Your task to perform on an android device: Go to battery settings Image 0: 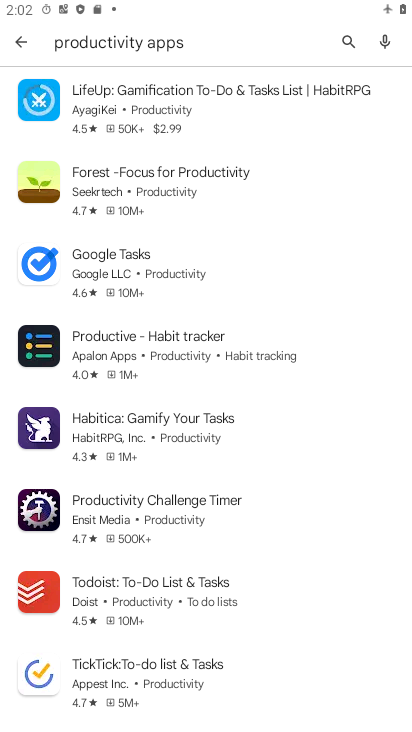
Step 0: press home button
Your task to perform on an android device: Go to battery settings Image 1: 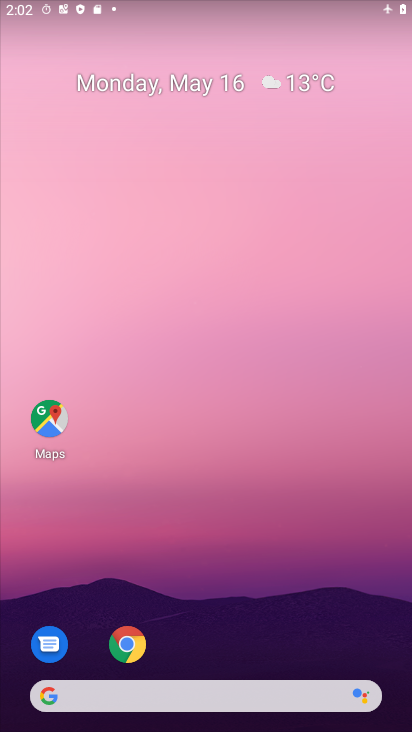
Step 1: drag from (270, 674) to (266, 192)
Your task to perform on an android device: Go to battery settings Image 2: 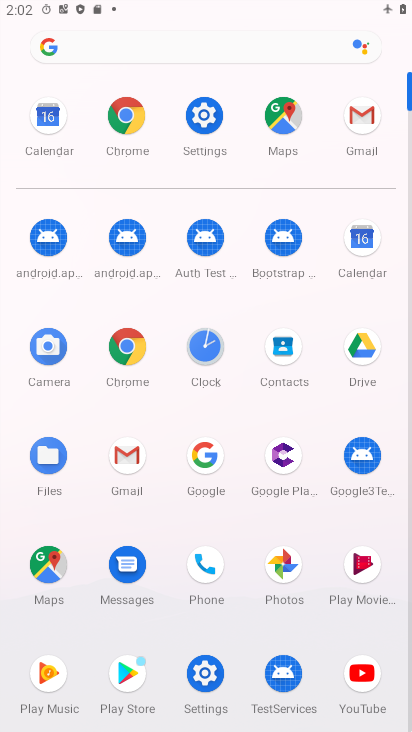
Step 2: click (188, 131)
Your task to perform on an android device: Go to battery settings Image 3: 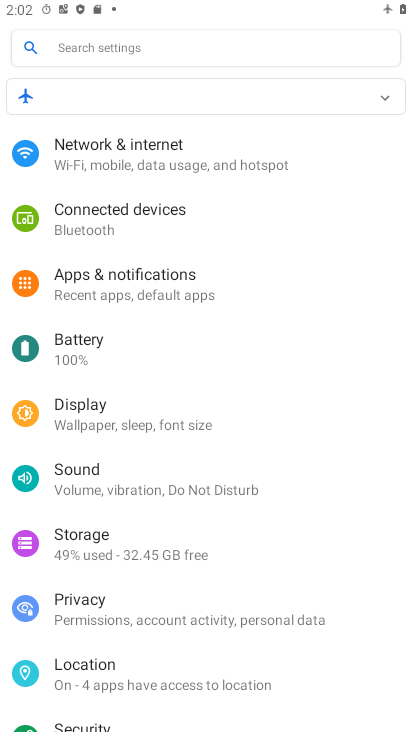
Step 3: click (149, 341)
Your task to perform on an android device: Go to battery settings Image 4: 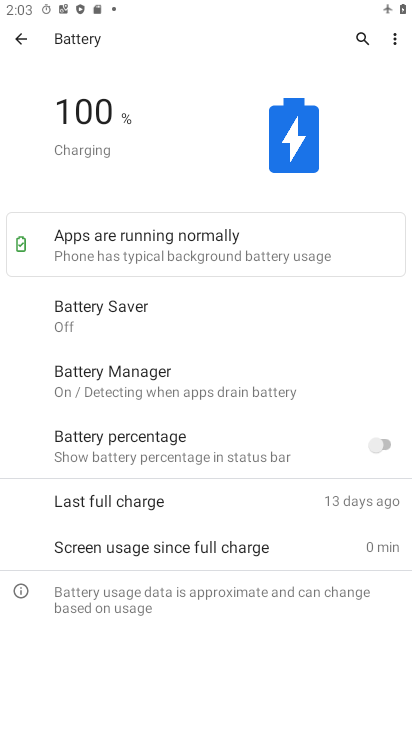
Step 4: task complete